Your task to perform on an android device: Find coffee shops on Maps Image 0: 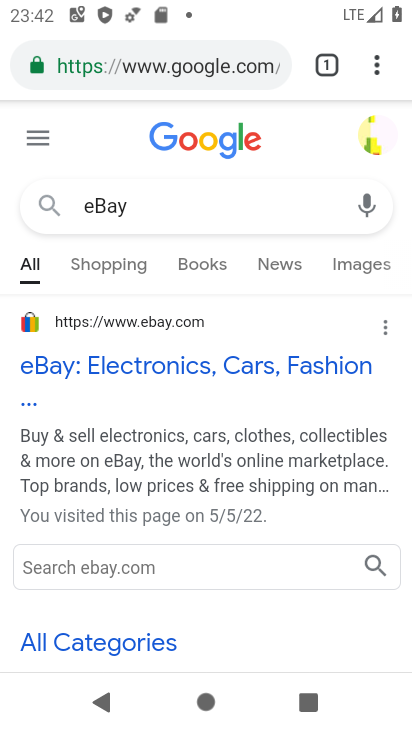
Step 0: press home button
Your task to perform on an android device: Find coffee shops on Maps Image 1: 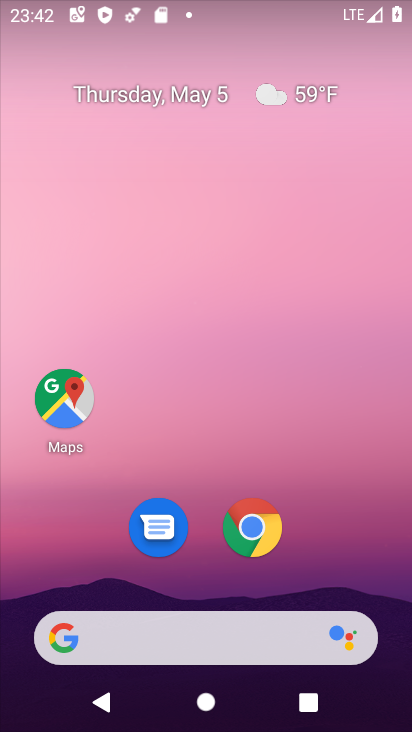
Step 1: click (62, 413)
Your task to perform on an android device: Find coffee shops on Maps Image 2: 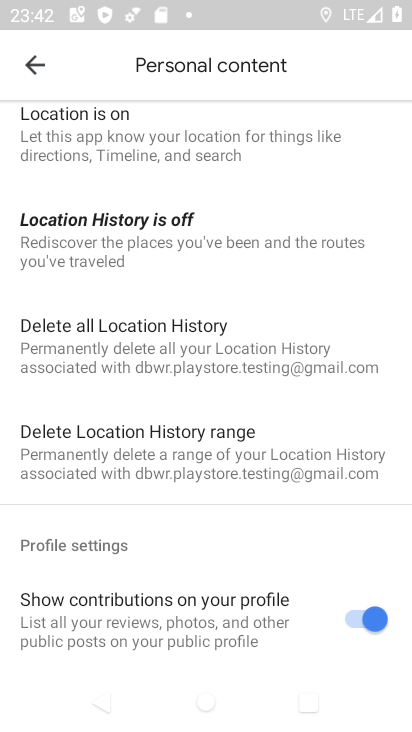
Step 2: click (32, 63)
Your task to perform on an android device: Find coffee shops on Maps Image 3: 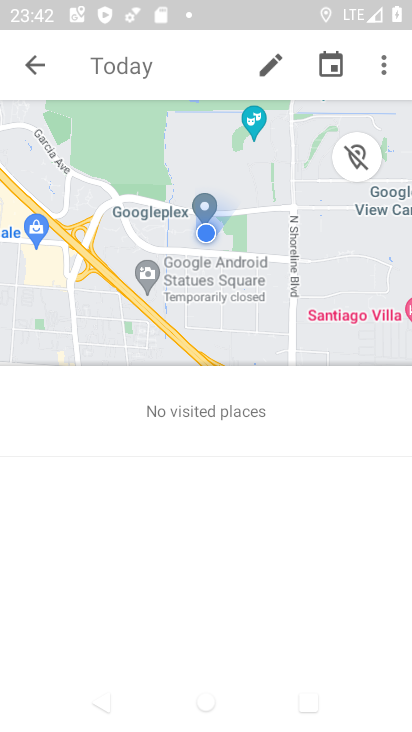
Step 3: click (33, 68)
Your task to perform on an android device: Find coffee shops on Maps Image 4: 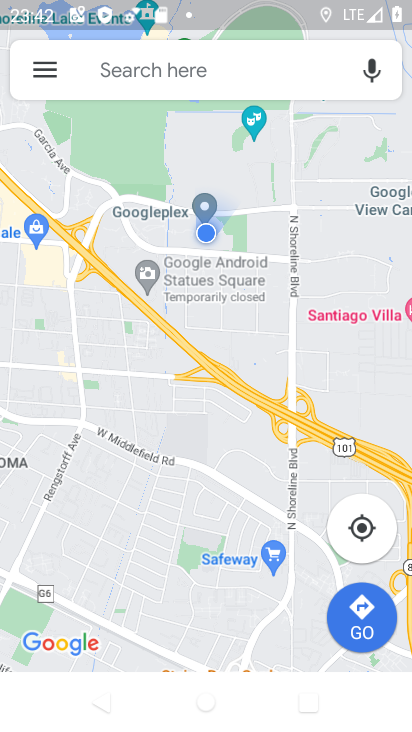
Step 4: click (215, 75)
Your task to perform on an android device: Find coffee shops on Maps Image 5: 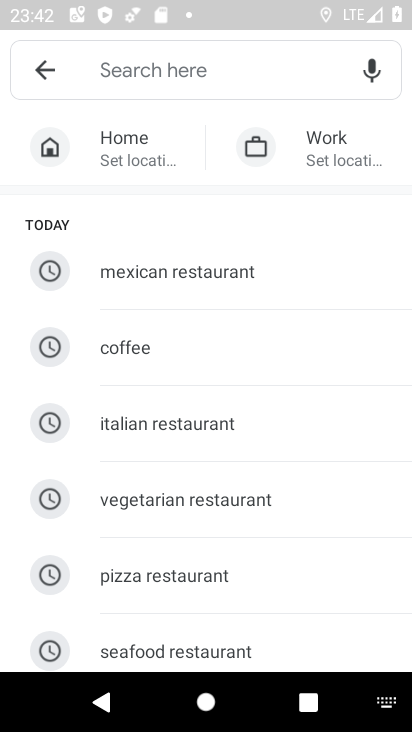
Step 5: type "coffee shops"
Your task to perform on an android device: Find coffee shops on Maps Image 6: 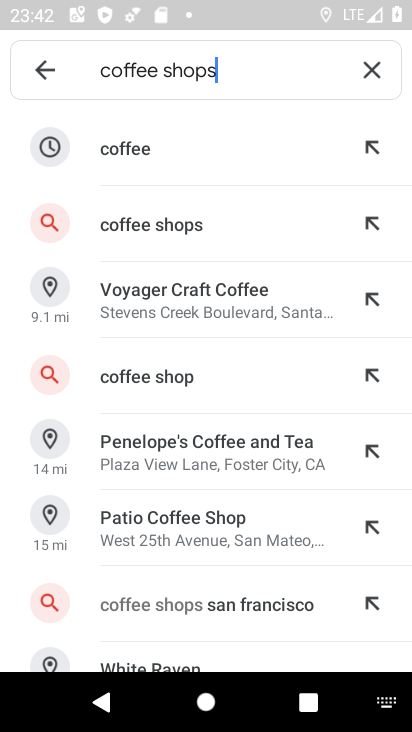
Step 6: click (143, 224)
Your task to perform on an android device: Find coffee shops on Maps Image 7: 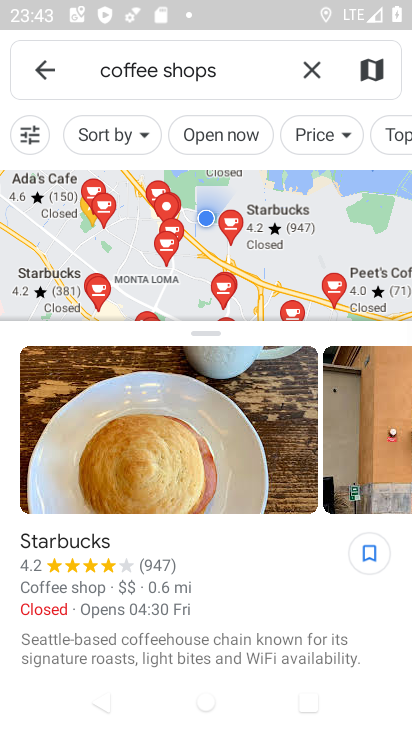
Step 7: task complete